Your task to perform on an android device: turn off smart reply in the gmail app Image 0: 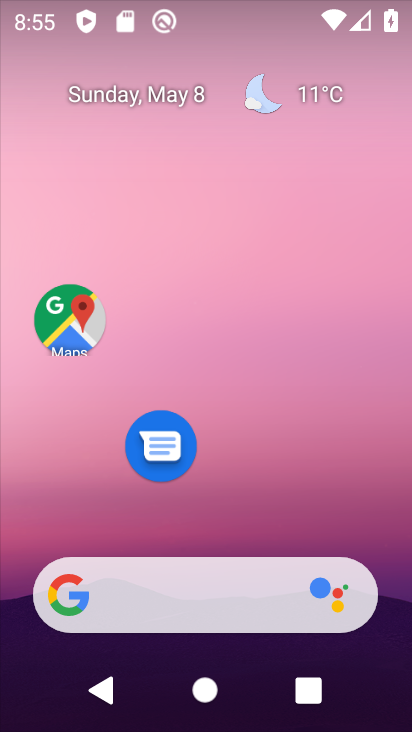
Step 0: drag from (405, 697) to (336, 109)
Your task to perform on an android device: turn off smart reply in the gmail app Image 1: 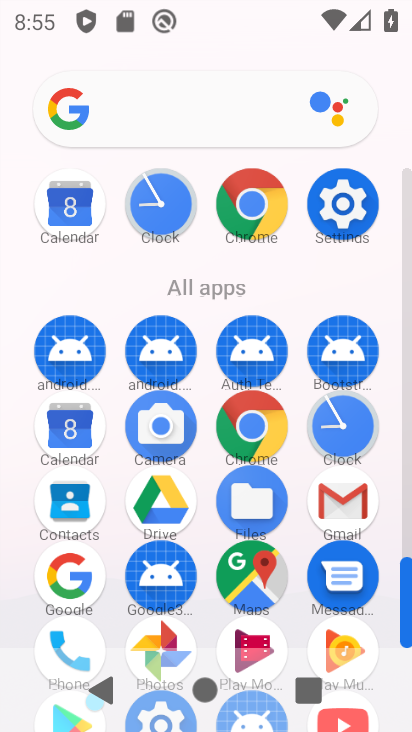
Step 1: click (344, 507)
Your task to perform on an android device: turn off smart reply in the gmail app Image 2: 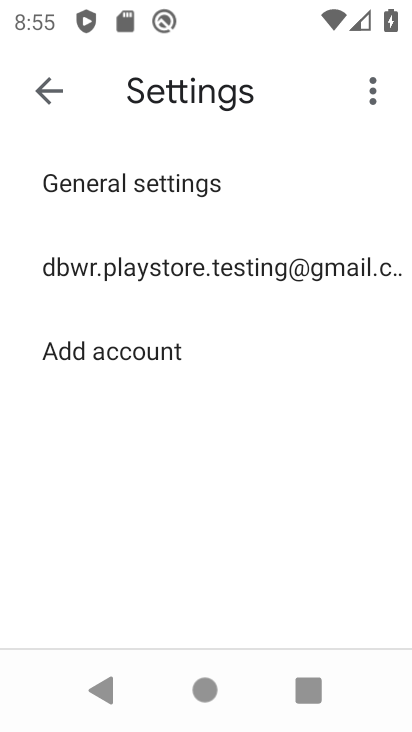
Step 2: click (43, 73)
Your task to perform on an android device: turn off smart reply in the gmail app Image 3: 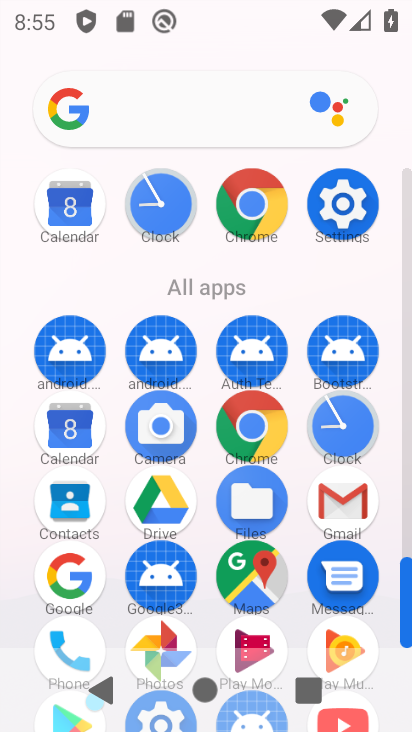
Step 3: click (339, 508)
Your task to perform on an android device: turn off smart reply in the gmail app Image 4: 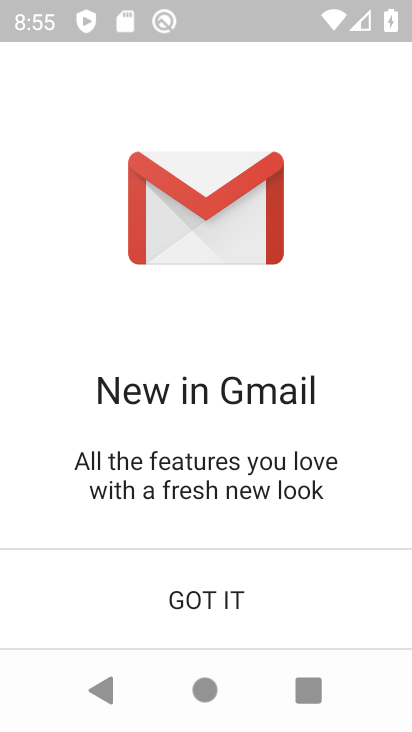
Step 4: click (214, 587)
Your task to perform on an android device: turn off smart reply in the gmail app Image 5: 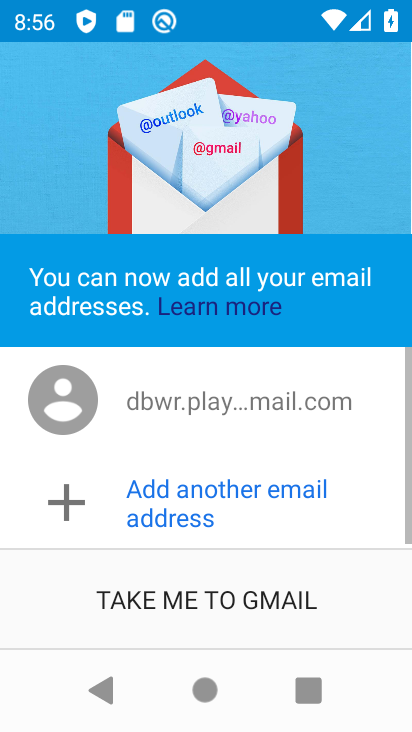
Step 5: click (324, 590)
Your task to perform on an android device: turn off smart reply in the gmail app Image 6: 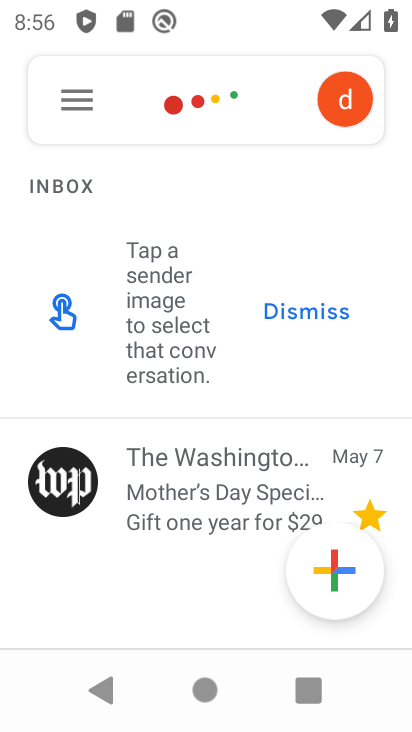
Step 6: click (81, 87)
Your task to perform on an android device: turn off smart reply in the gmail app Image 7: 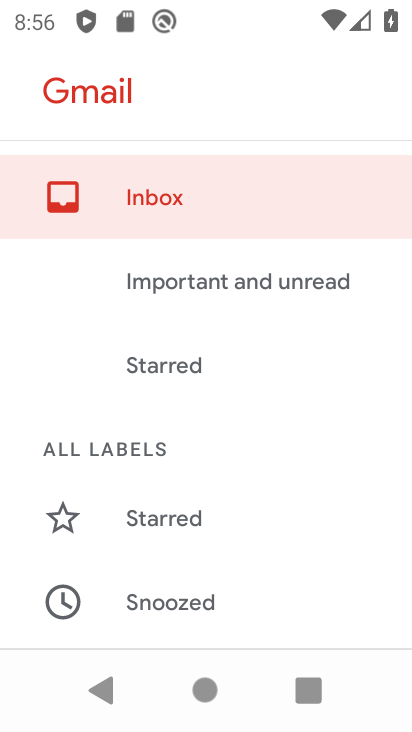
Step 7: drag from (273, 595) to (265, 65)
Your task to perform on an android device: turn off smart reply in the gmail app Image 8: 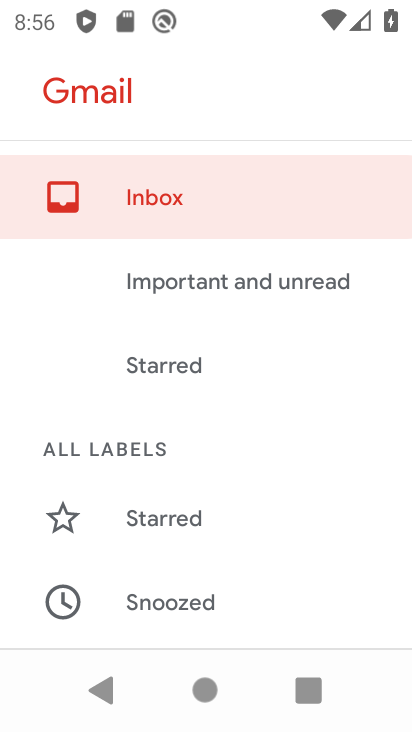
Step 8: drag from (290, 572) to (249, 0)
Your task to perform on an android device: turn off smart reply in the gmail app Image 9: 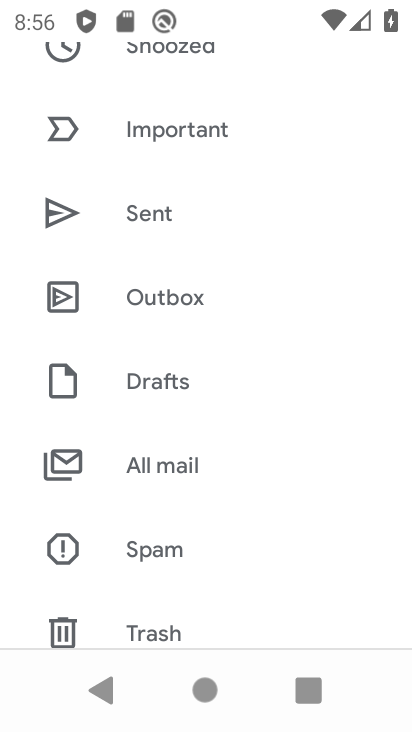
Step 9: drag from (224, 427) to (212, 20)
Your task to perform on an android device: turn off smart reply in the gmail app Image 10: 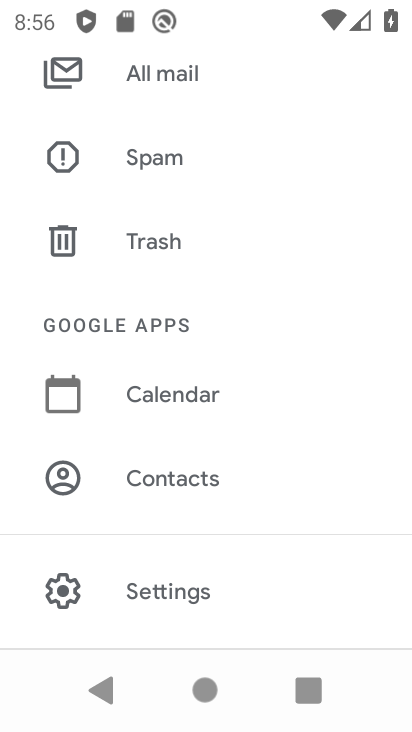
Step 10: click (215, 593)
Your task to perform on an android device: turn off smart reply in the gmail app Image 11: 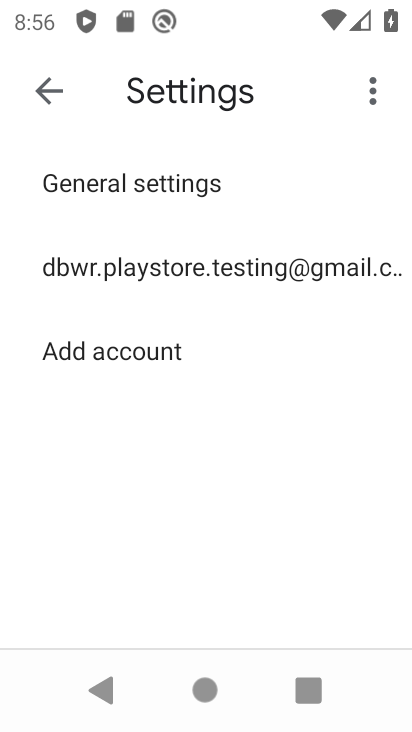
Step 11: click (194, 276)
Your task to perform on an android device: turn off smart reply in the gmail app Image 12: 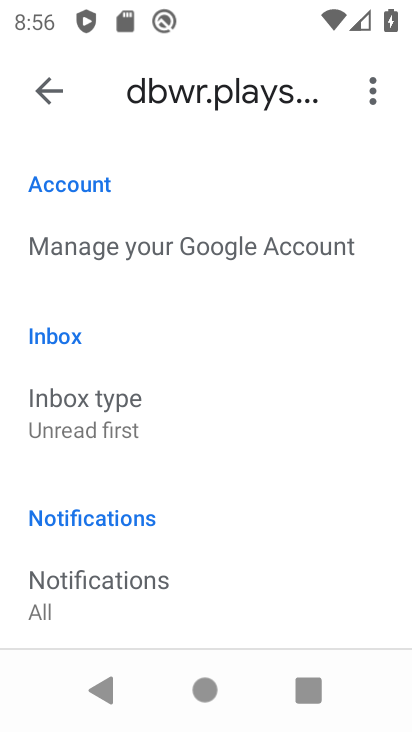
Step 12: drag from (272, 524) to (261, 86)
Your task to perform on an android device: turn off smart reply in the gmail app Image 13: 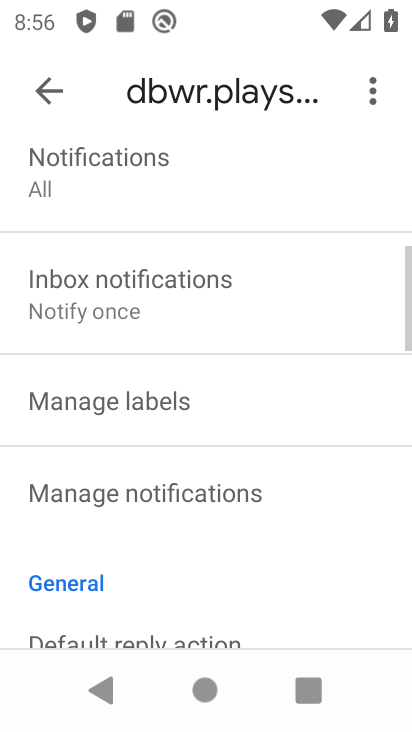
Step 13: drag from (300, 523) to (297, 191)
Your task to perform on an android device: turn off smart reply in the gmail app Image 14: 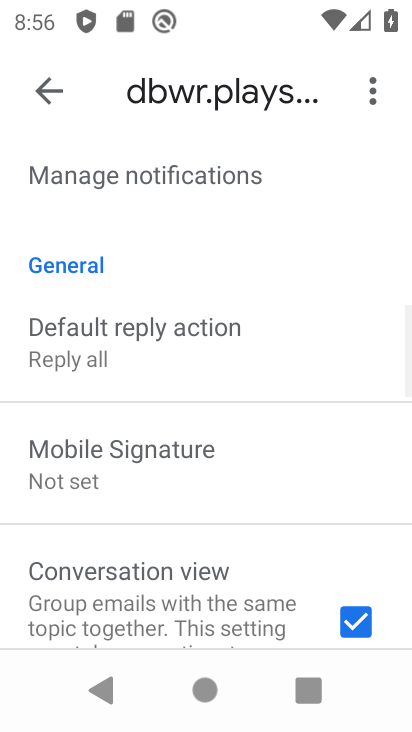
Step 14: drag from (323, 501) to (304, 287)
Your task to perform on an android device: turn off smart reply in the gmail app Image 15: 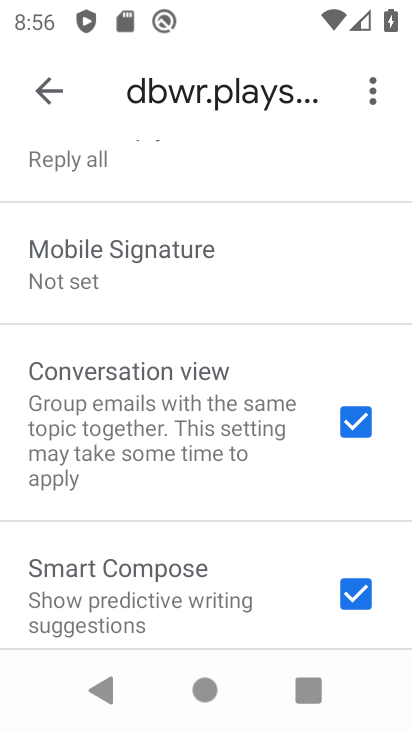
Step 15: drag from (236, 600) to (237, 423)
Your task to perform on an android device: turn off smart reply in the gmail app Image 16: 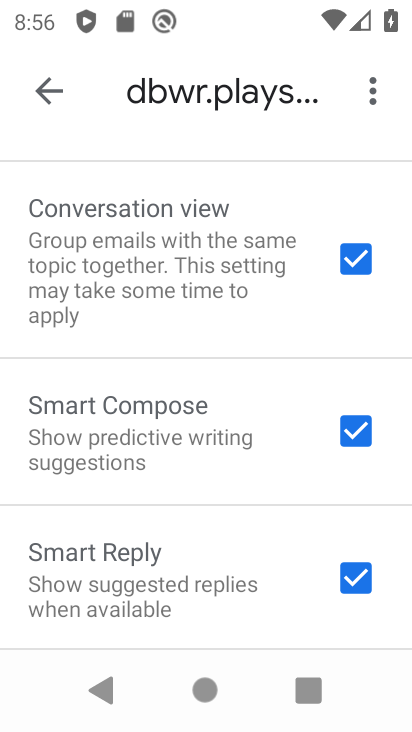
Step 16: click (246, 546)
Your task to perform on an android device: turn off smart reply in the gmail app Image 17: 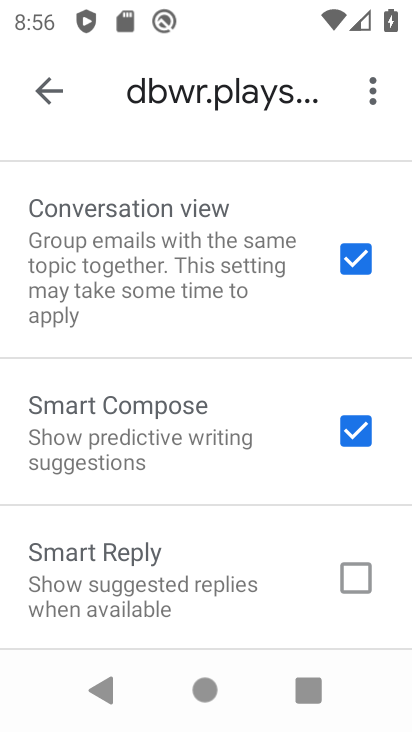
Step 17: task complete